Your task to perform on an android device: Search for "apple airpods pro" on newegg, select the first entry, and add it to the cart. Image 0: 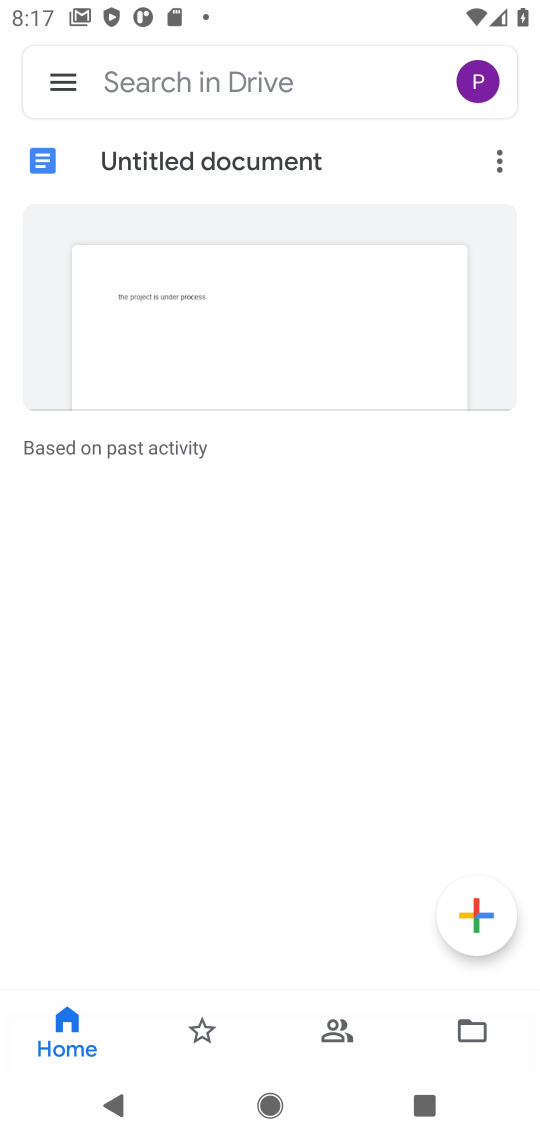
Step 0: press home button
Your task to perform on an android device: Search for "apple airpods pro" on newegg, select the first entry, and add it to the cart. Image 1: 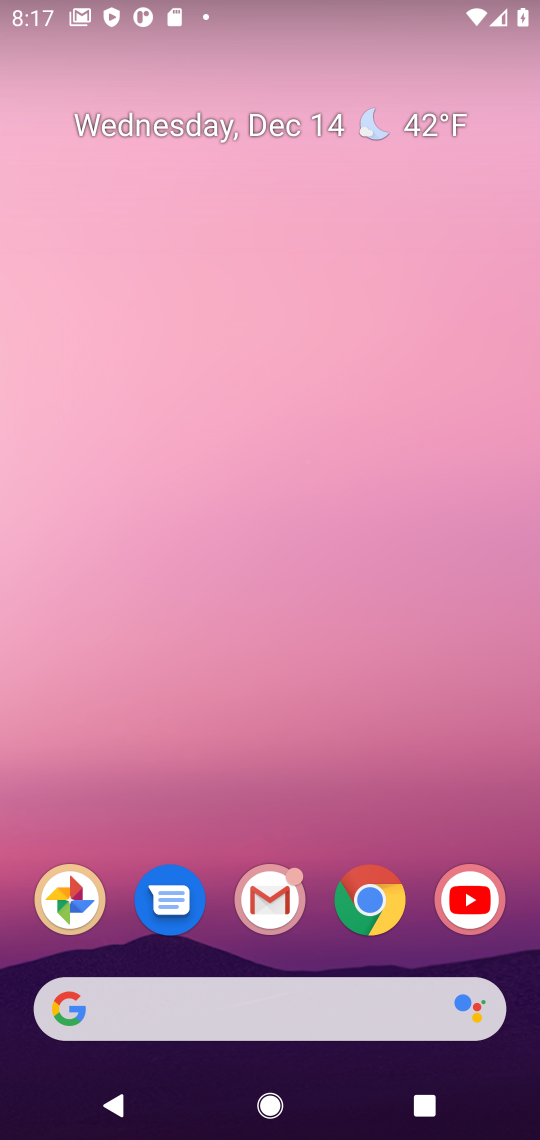
Step 1: click (374, 902)
Your task to perform on an android device: Search for "apple airpods pro" on newegg, select the first entry, and add it to the cart. Image 2: 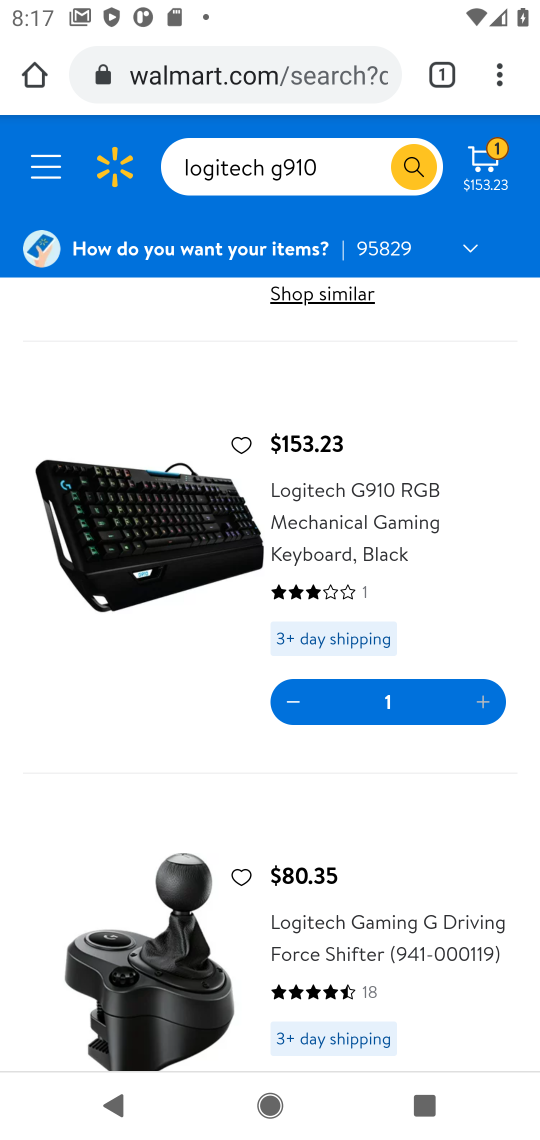
Step 2: click (201, 79)
Your task to perform on an android device: Search for "apple airpods pro" on newegg, select the first entry, and add it to the cart. Image 3: 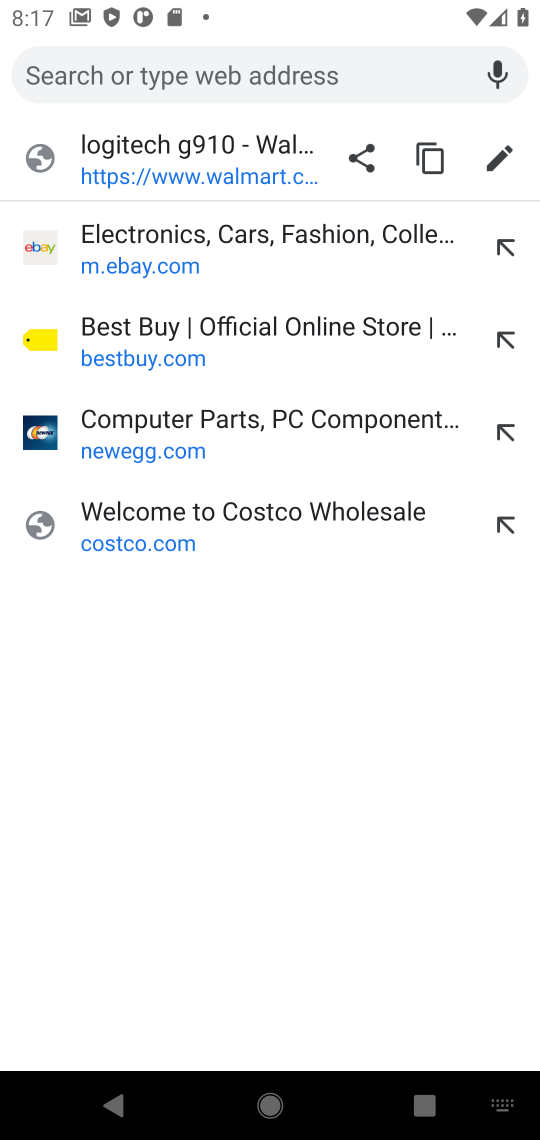
Step 3: click (128, 431)
Your task to perform on an android device: Search for "apple airpods pro" on newegg, select the first entry, and add it to the cart. Image 4: 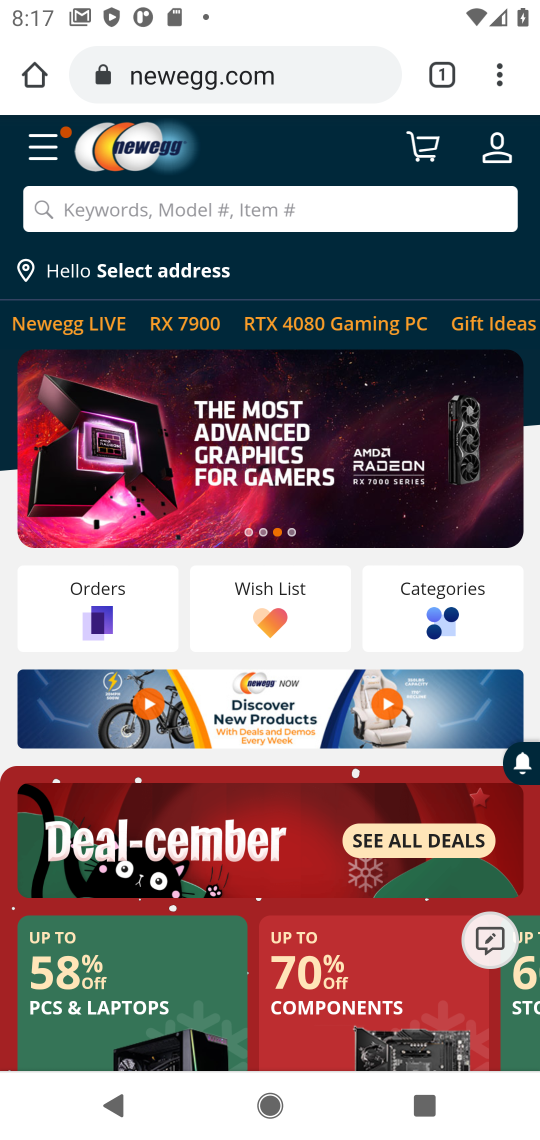
Step 4: click (95, 216)
Your task to perform on an android device: Search for "apple airpods pro" on newegg, select the first entry, and add it to the cart. Image 5: 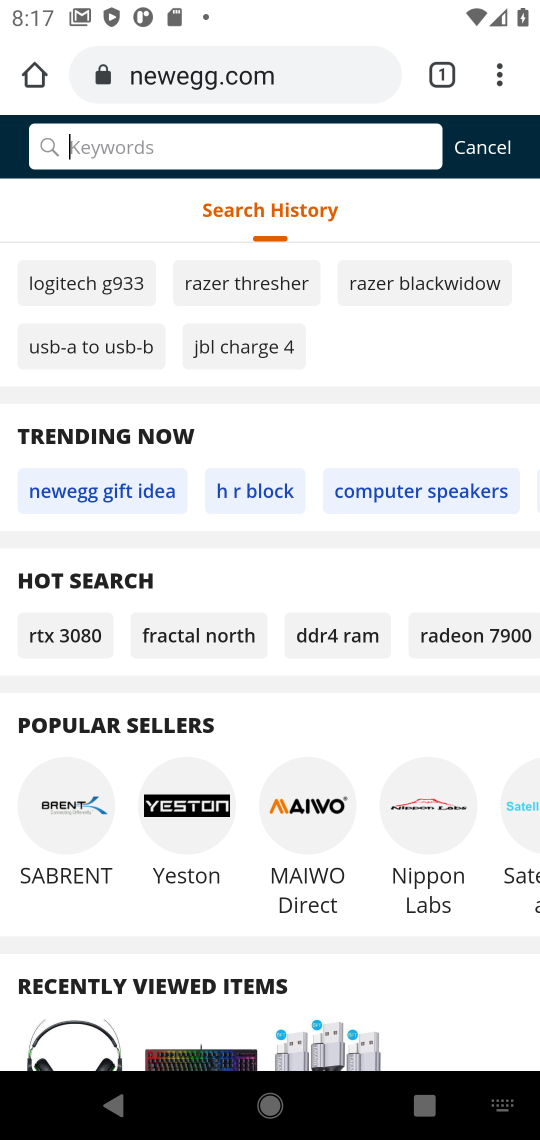
Step 5: type "apple airpods pro"
Your task to perform on an android device: Search for "apple airpods pro" on newegg, select the first entry, and add it to the cart. Image 6: 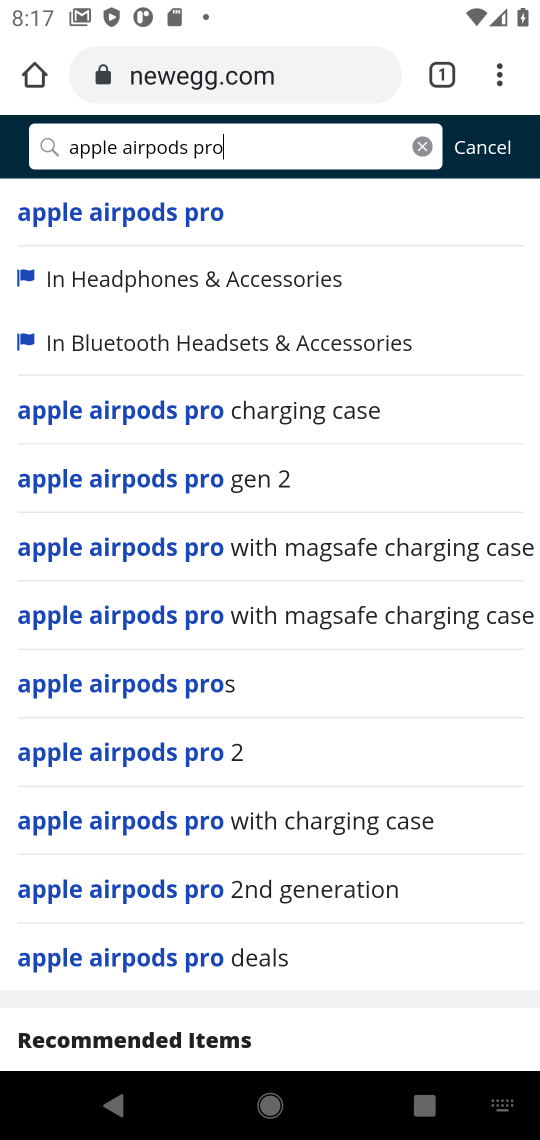
Step 6: click (162, 220)
Your task to perform on an android device: Search for "apple airpods pro" on newegg, select the first entry, and add it to the cart. Image 7: 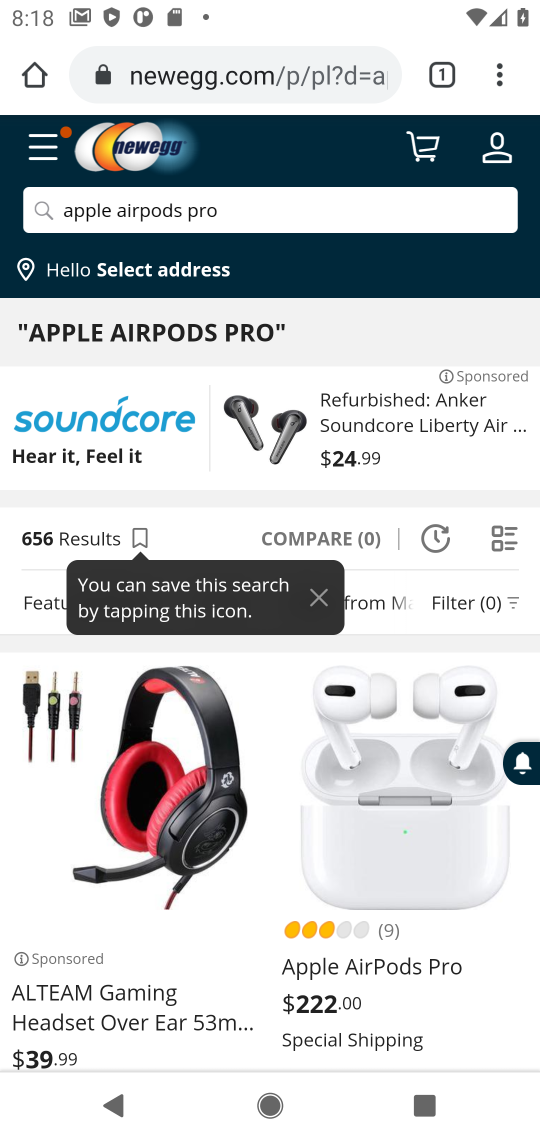
Step 7: task complete